Your task to perform on an android device: What's the weather? Image 0: 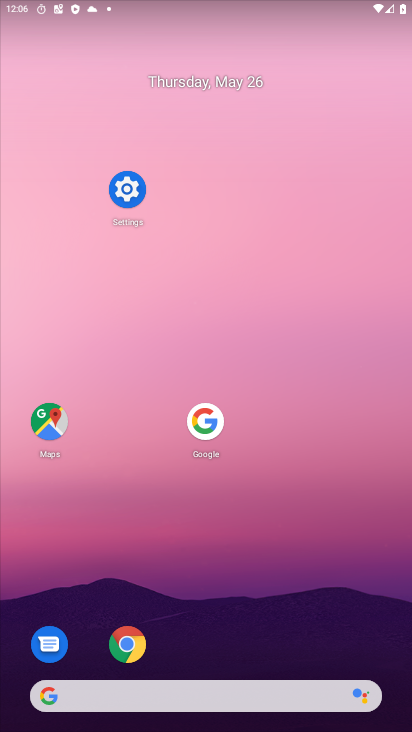
Step 0: drag from (223, 612) to (225, 190)
Your task to perform on an android device: What's the weather? Image 1: 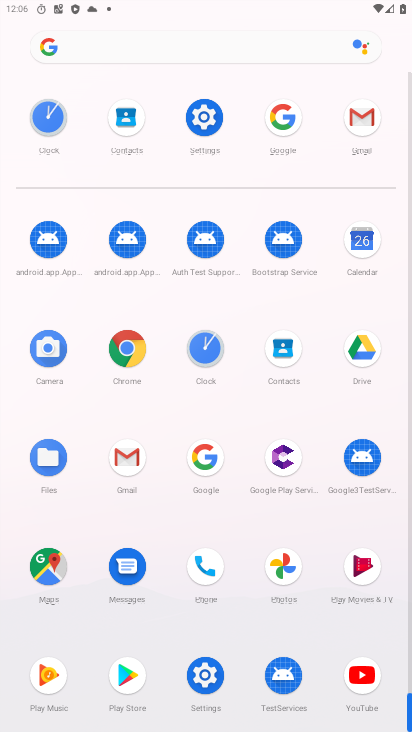
Step 1: click (281, 118)
Your task to perform on an android device: What's the weather? Image 2: 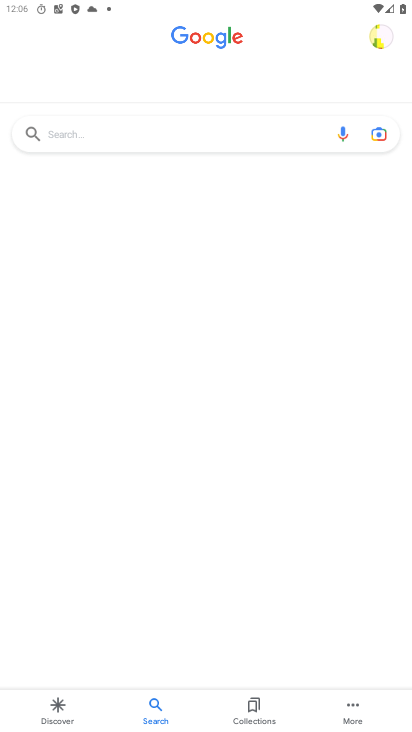
Step 2: click (121, 122)
Your task to perform on an android device: What's the weather? Image 3: 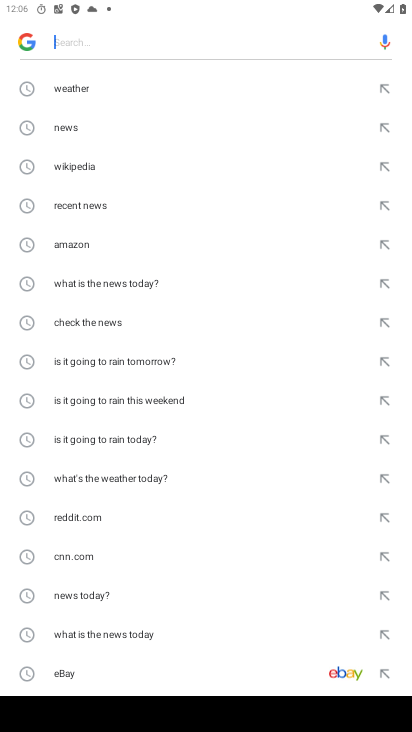
Step 3: click (95, 90)
Your task to perform on an android device: What's the weather? Image 4: 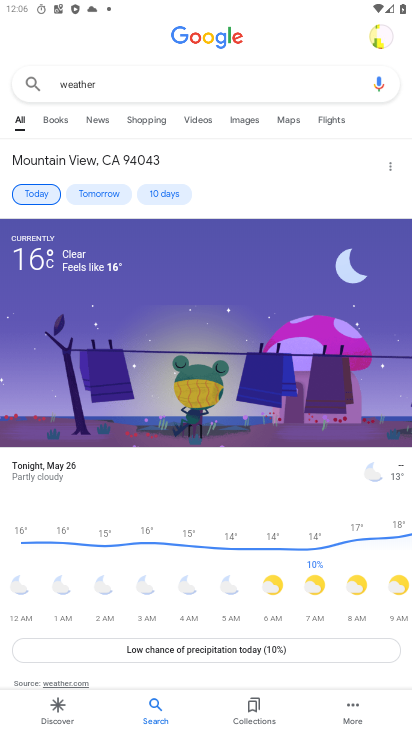
Step 4: task complete